Your task to perform on an android device: allow notifications from all sites in the chrome app Image 0: 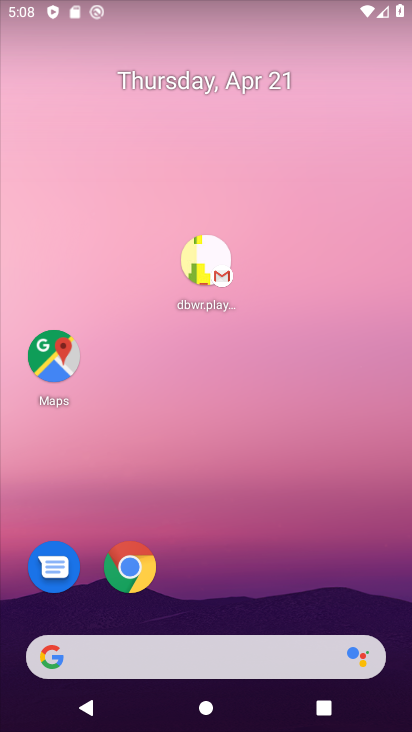
Step 0: click (135, 581)
Your task to perform on an android device: allow notifications from all sites in the chrome app Image 1: 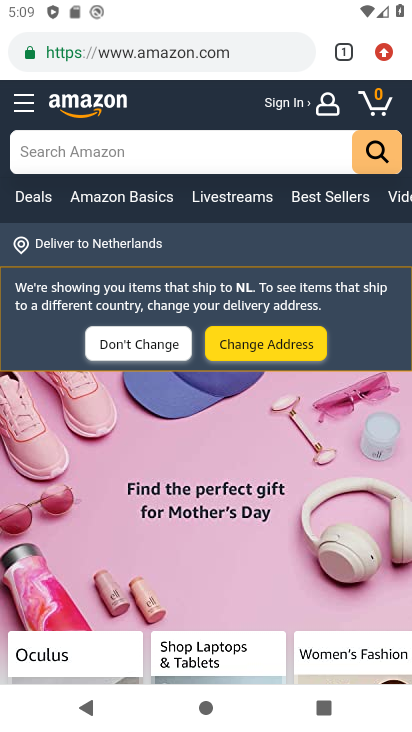
Step 1: click (384, 54)
Your task to perform on an android device: allow notifications from all sites in the chrome app Image 2: 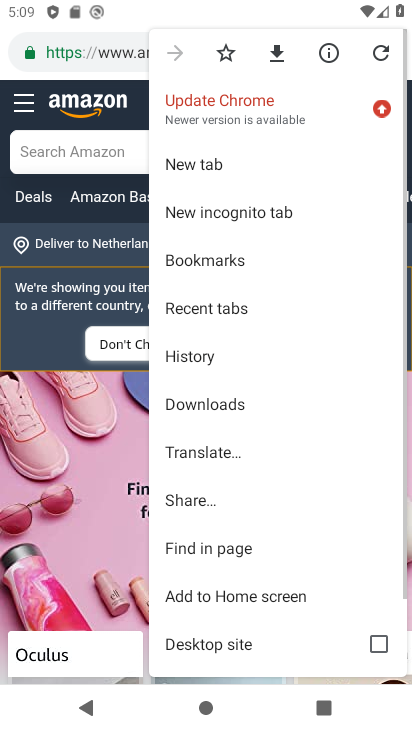
Step 2: drag from (193, 567) to (205, 341)
Your task to perform on an android device: allow notifications from all sites in the chrome app Image 3: 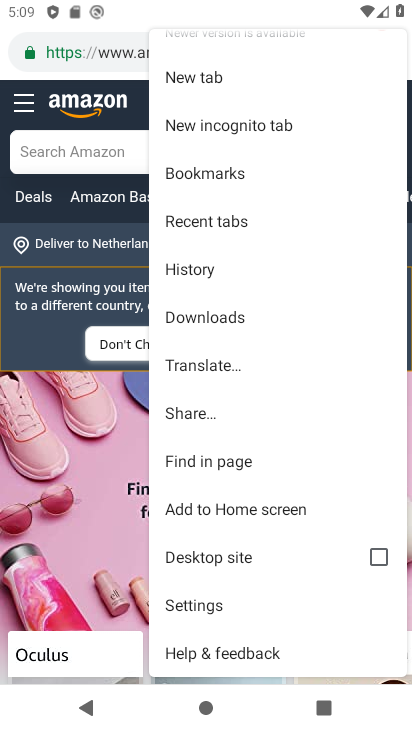
Step 3: click (201, 608)
Your task to perform on an android device: allow notifications from all sites in the chrome app Image 4: 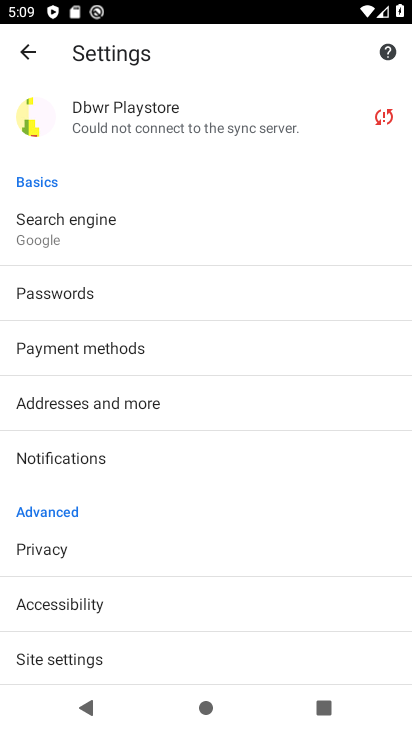
Step 4: click (81, 470)
Your task to perform on an android device: allow notifications from all sites in the chrome app Image 5: 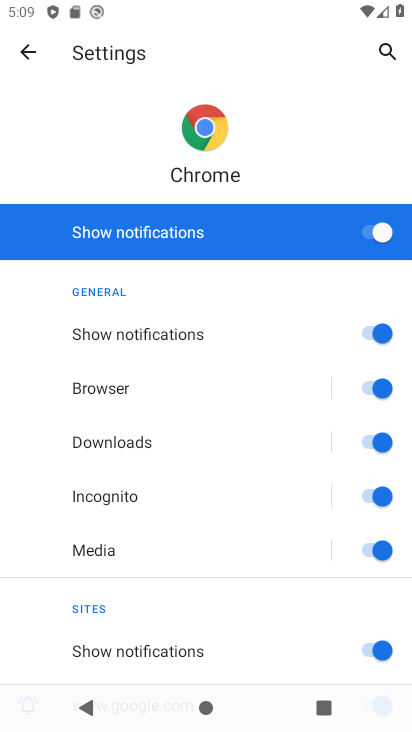
Step 5: task complete